Your task to perform on an android device: Go to eBay Image 0: 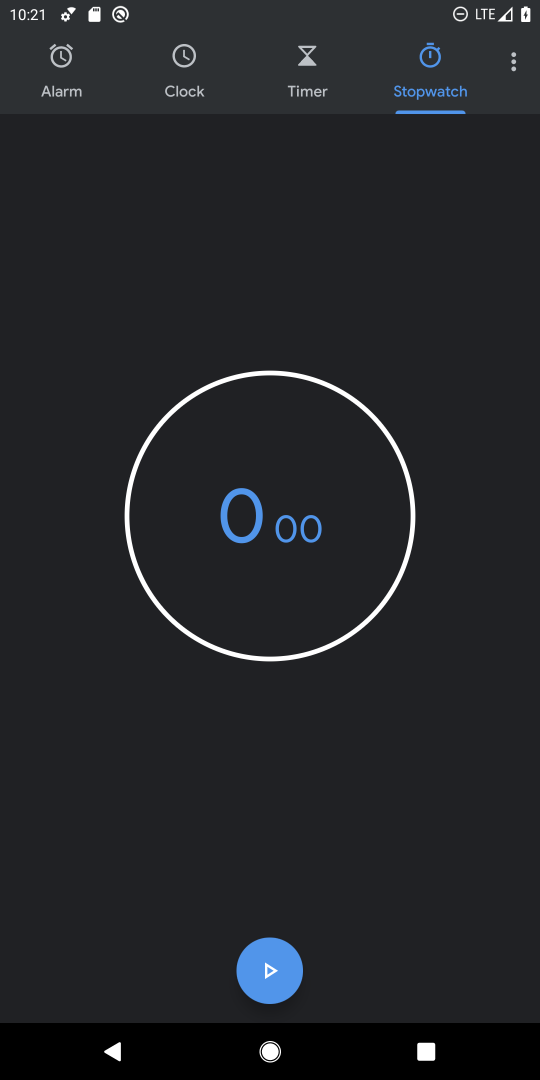
Step 0: press home button
Your task to perform on an android device: Go to eBay Image 1: 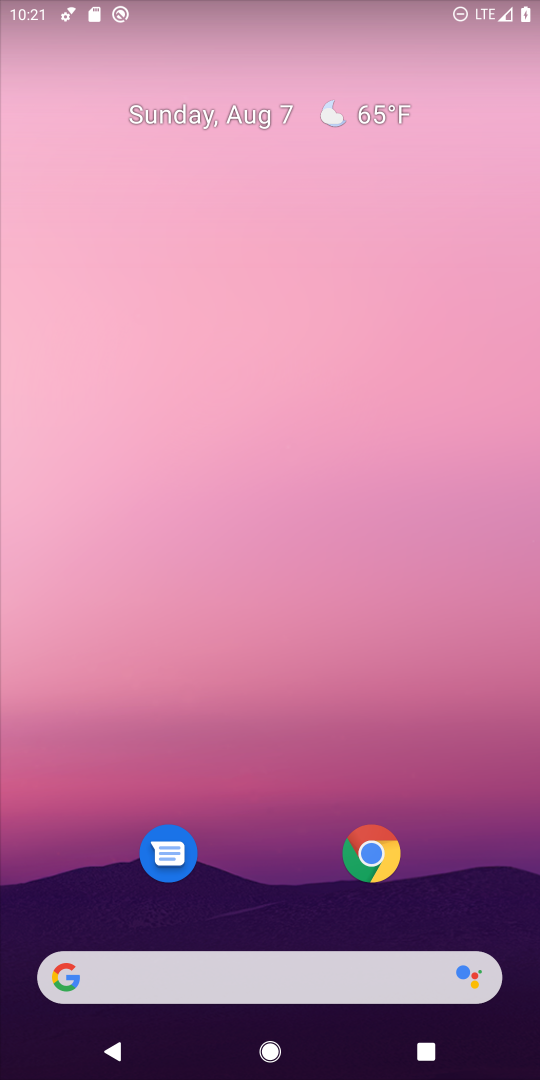
Step 1: click (298, 80)
Your task to perform on an android device: Go to eBay Image 2: 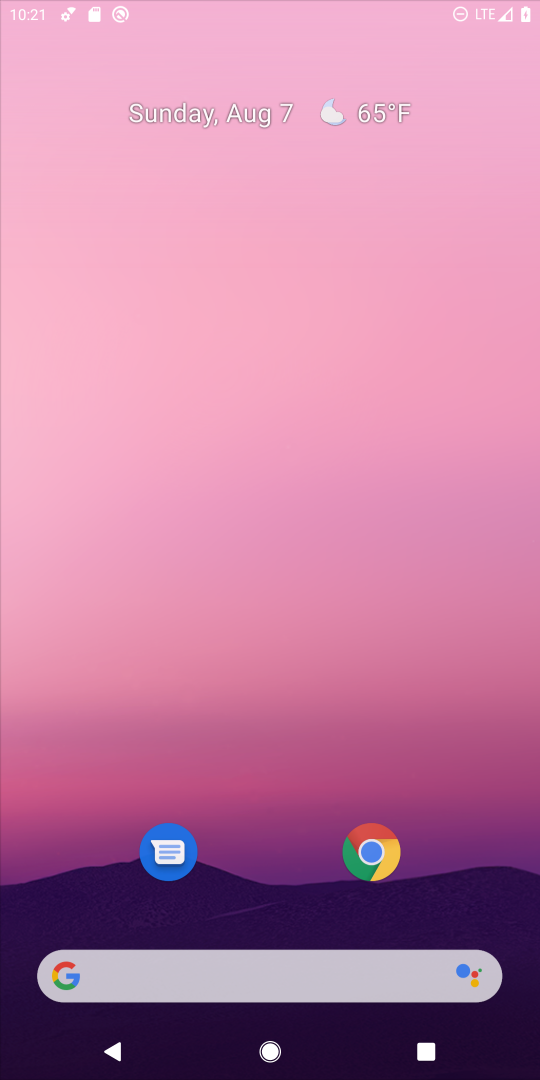
Step 2: drag from (307, 902) to (287, 241)
Your task to perform on an android device: Go to eBay Image 3: 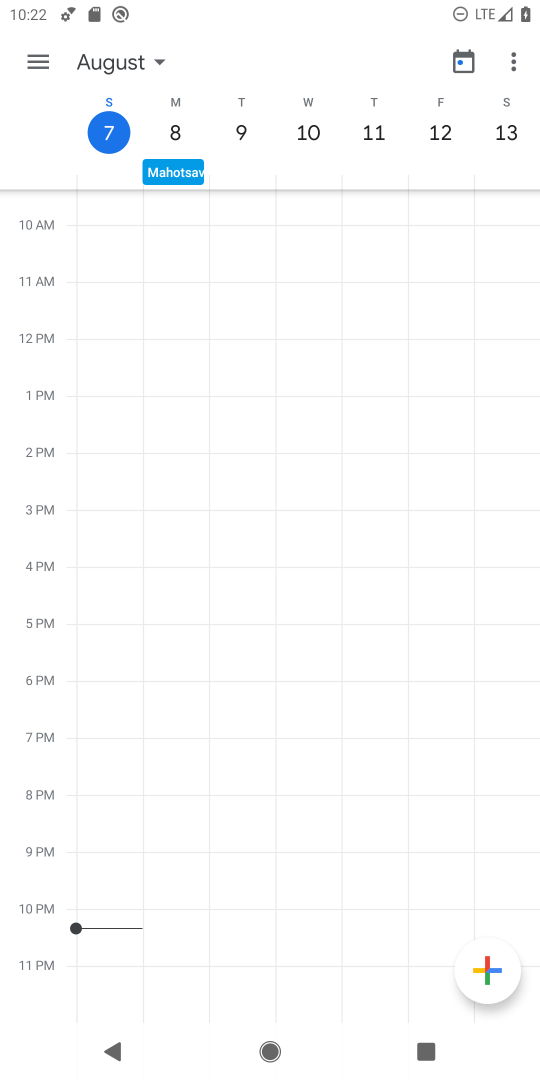
Step 3: press home button
Your task to perform on an android device: Go to eBay Image 4: 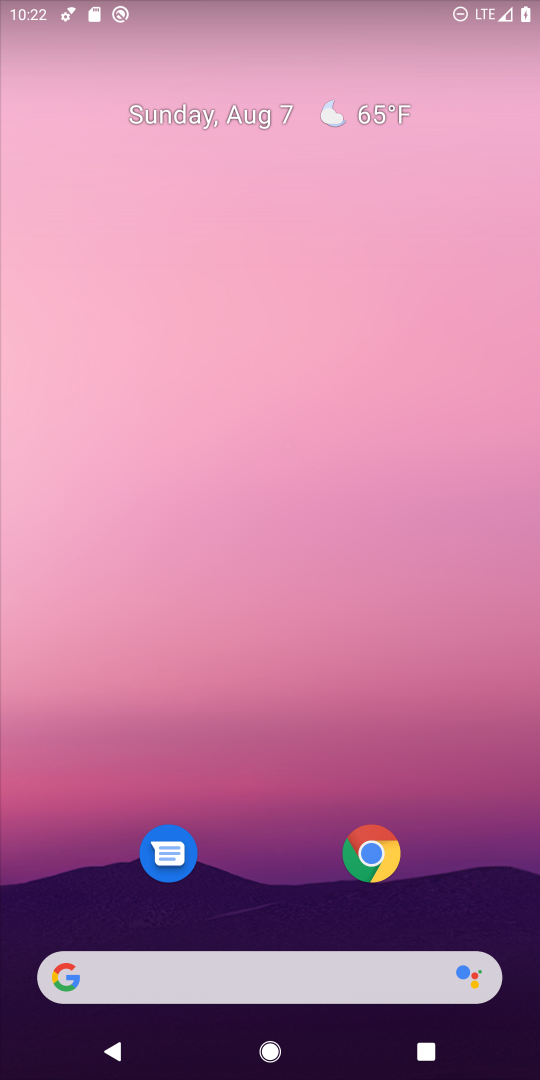
Step 4: drag from (244, 840) to (323, 190)
Your task to perform on an android device: Go to eBay Image 5: 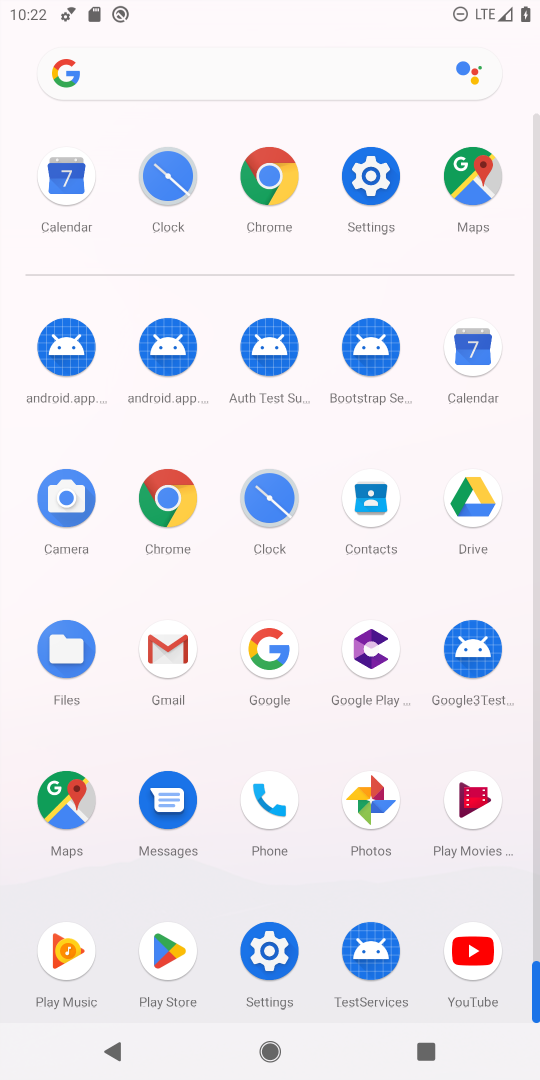
Step 5: click (277, 178)
Your task to perform on an android device: Go to eBay Image 6: 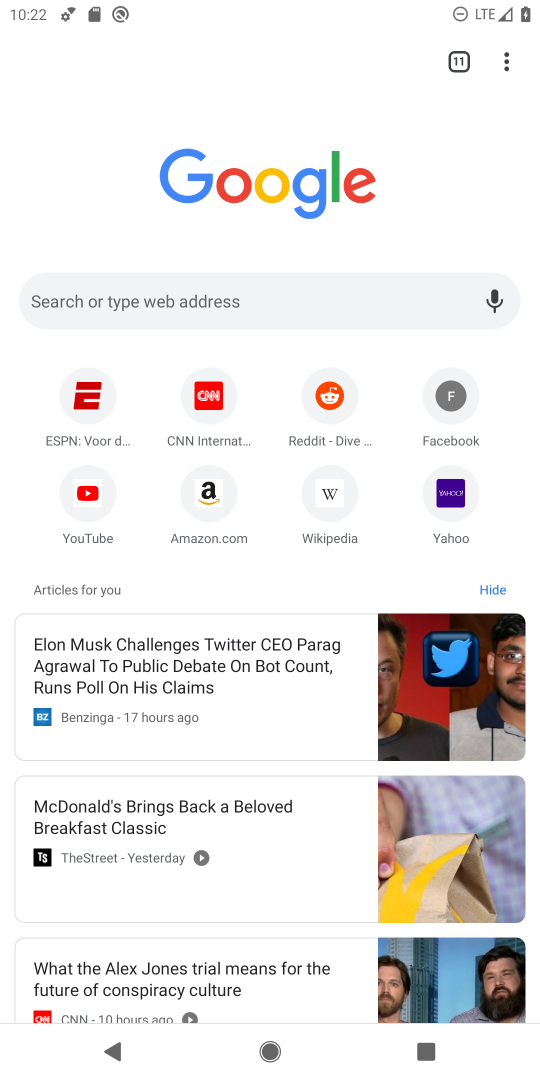
Step 6: click (267, 291)
Your task to perform on an android device: Go to eBay Image 7: 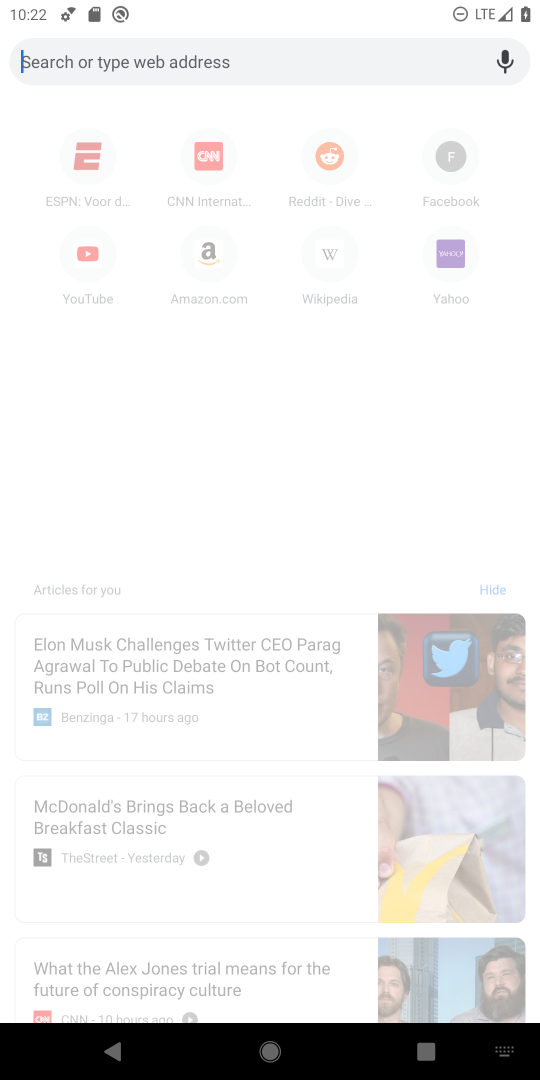
Step 7: type "eBay "
Your task to perform on an android device: Go to eBay Image 8: 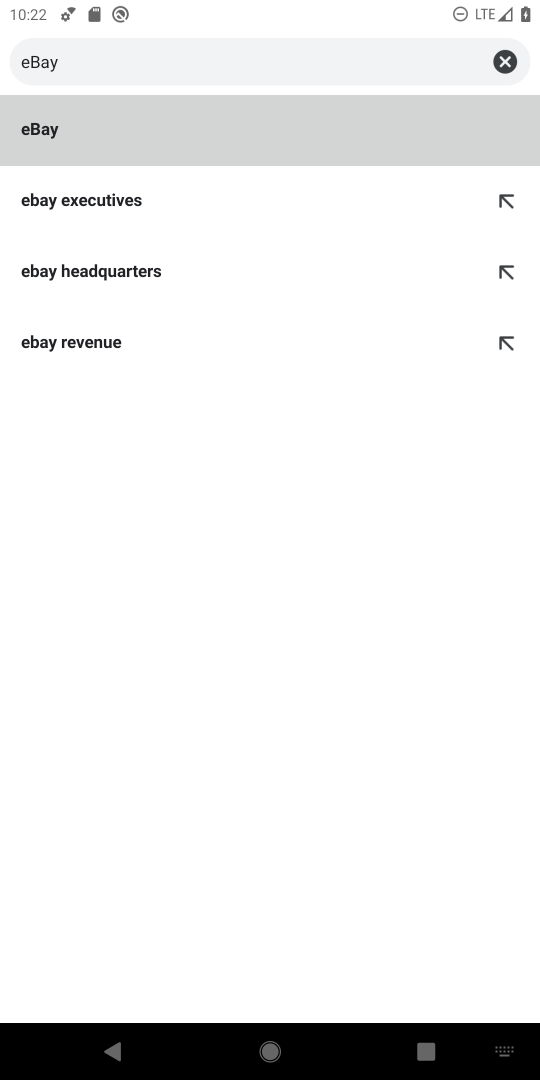
Step 8: click (105, 126)
Your task to perform on an android device: Go to eBay Image 9: 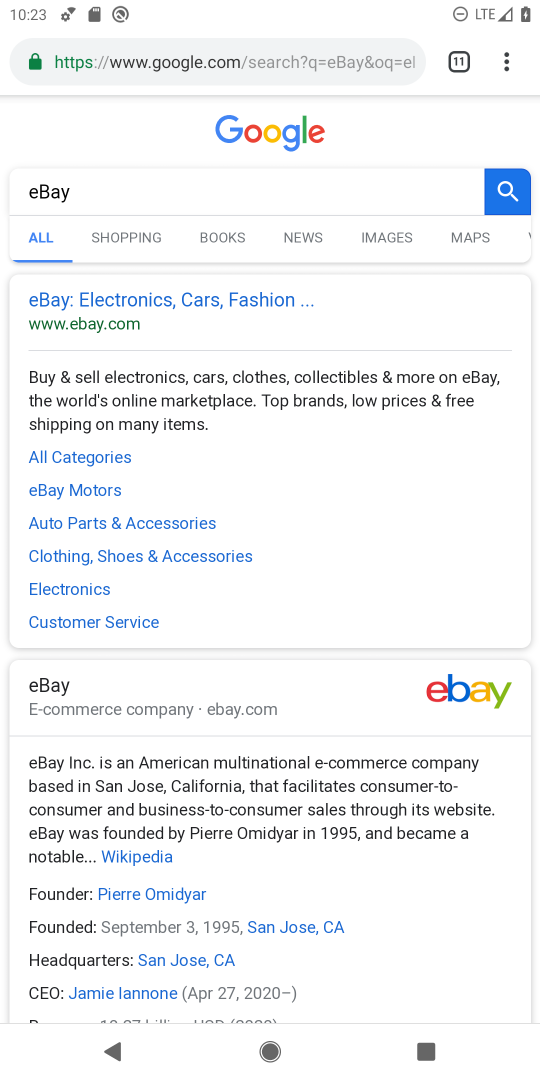
Step 9: task complete